Your task to perform on an android device: Open Reddit.com Image 0: 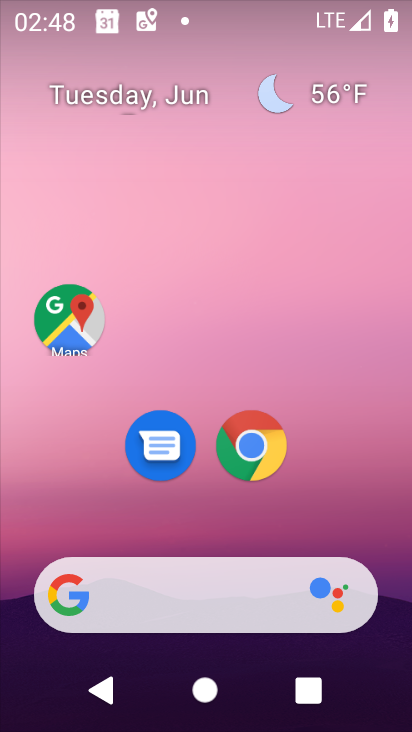
Step 0: click (225, 616)
Your task to perform on an android device: Open Reddit.com Image 1: 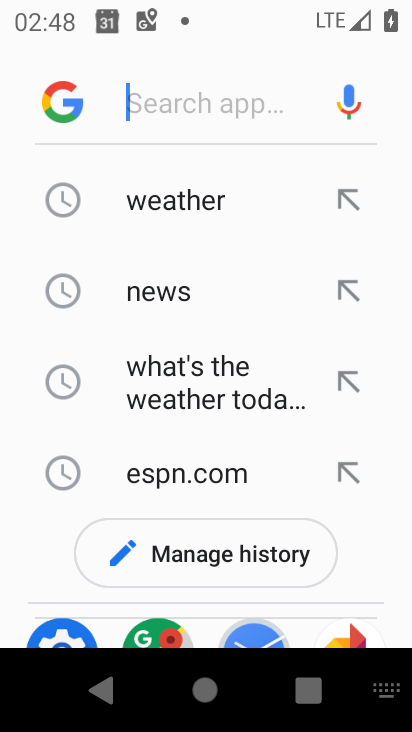
Step 1: type "reddit"
Your task to perform on an android device: Open Reddit.com Image 2: 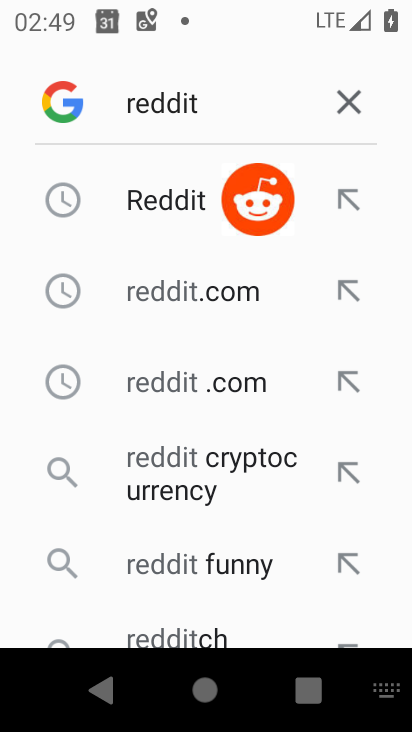
Step 2: click (211, 198)
Your task to perform on an android device: Open Reddit.com Image 3: 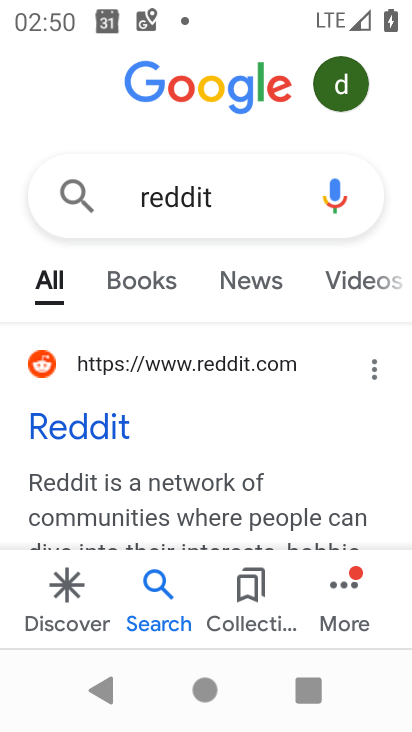
Step 3: click (164, 359)
Your task to perform on an android device: Open Reddit.com Image 4: 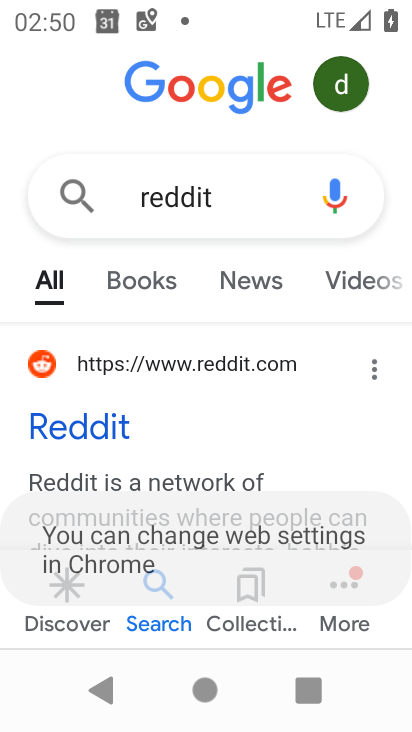
Step 4: task complete